Your task to perform on an android device: Open Maps and search for coffee Image 0: 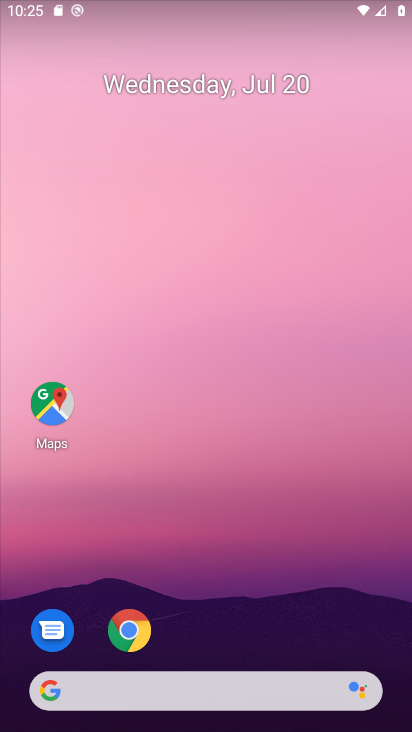
Step 0: drag from (223, 532) to (180, 99)
Your task to perform on an android device: Open Maps and search for coffee Image 1: 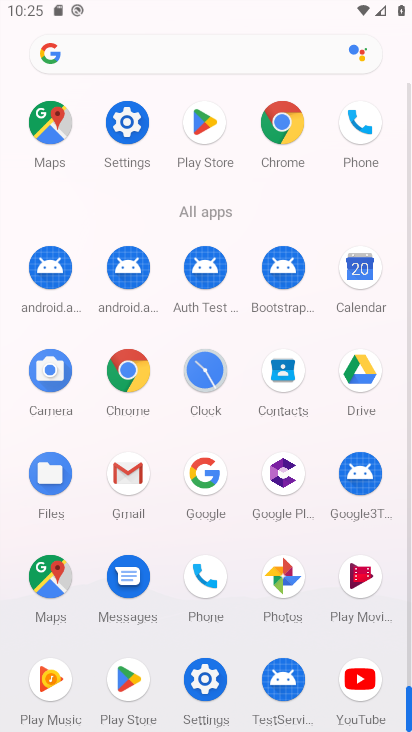
Step 1: click (48, 116)
Your task to perform on an android device: Open Maps and search for coffee Image 2: 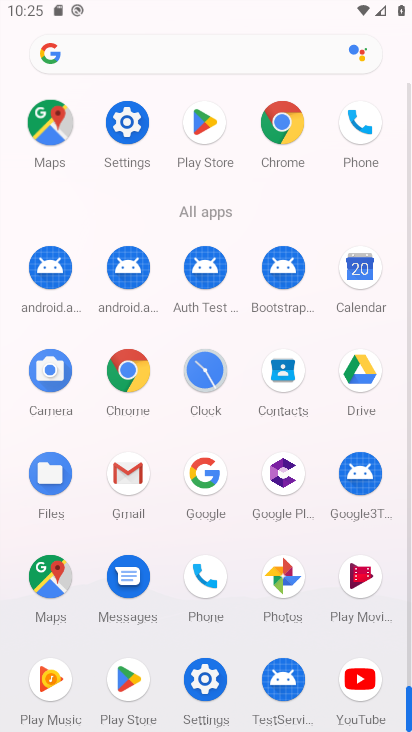
Step 2: click (46, 117)
Your task to perform on an android device: Open Maps and search for coffee Image 3: 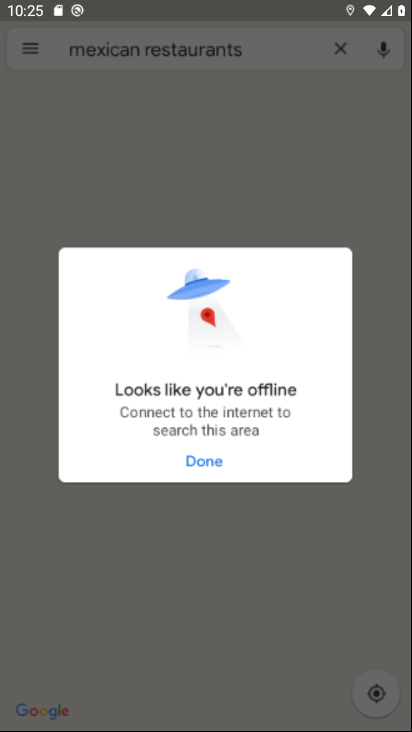
Step 3: click (51, 115)
Your task to perform on an android device: Open Maps and search for coffee Image 4: 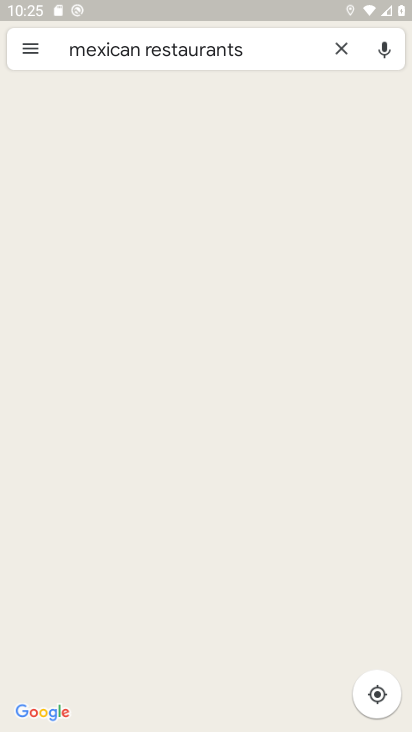
Step 4: click (243, 38)
Your task to perform on an android device: Open Maps and search for coffee Image 5: 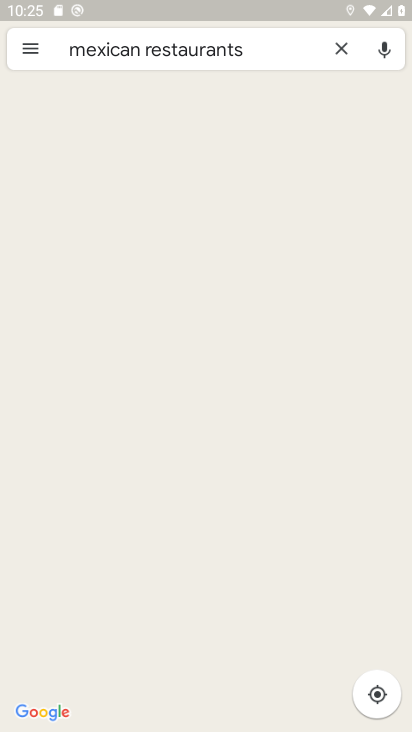
Step 5: click (245, 39)
Your task to perform on an android device: Open Maps and search for coffee Image 6: 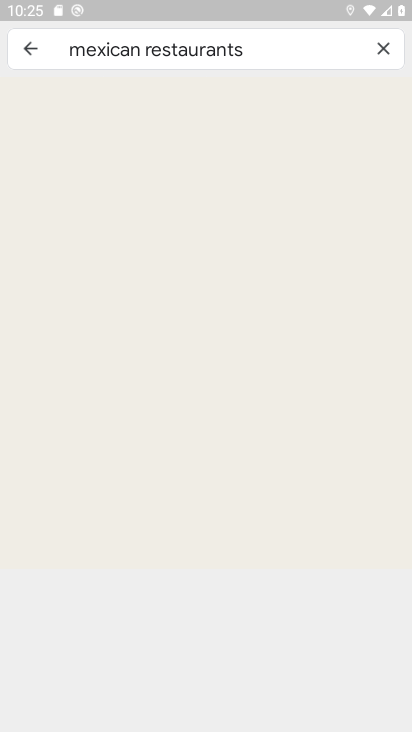
Step 6: click (248, 36)
Your task to perform on an android device: Open Maps and search for coffee Image 7: 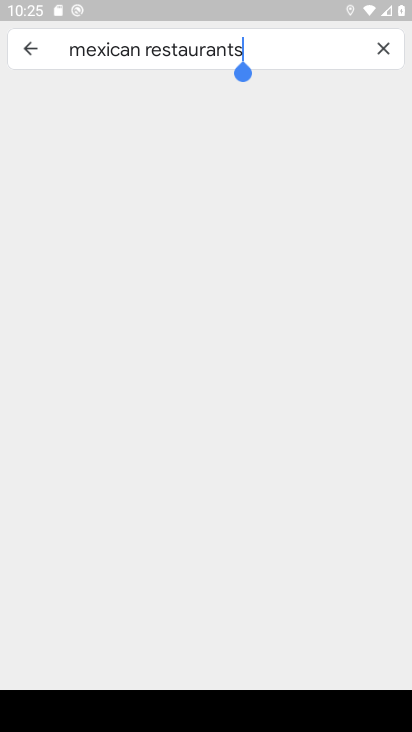
Step 7: click (383, 44)
Your task to perform on an android device: Open Maps and search for coffee Image 8: 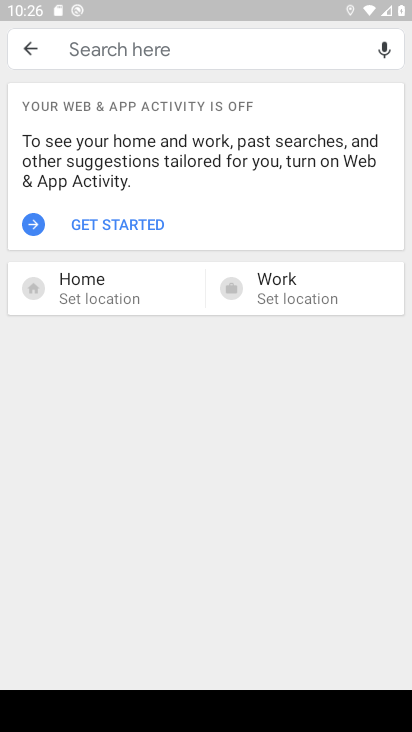
Step 8: type "coffee"
Your task to perform on an android device: Open Maps and search for coffee Image 9: 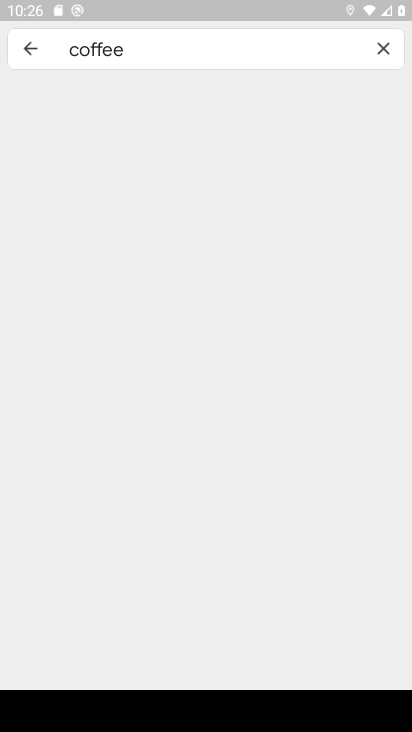
Step 9: click (158, 62)
Your task to perform on an android device: Open Maps and search for coffee Image 10: 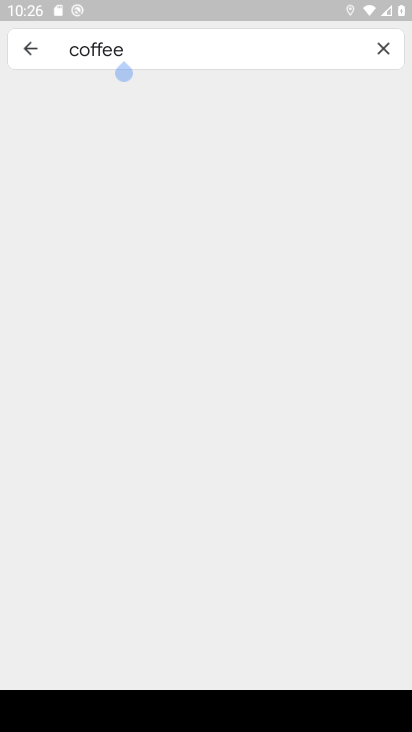
Step 10: click (158, 63)
Your task to perform on an android device: Open Maps and search for coffee Image 11: 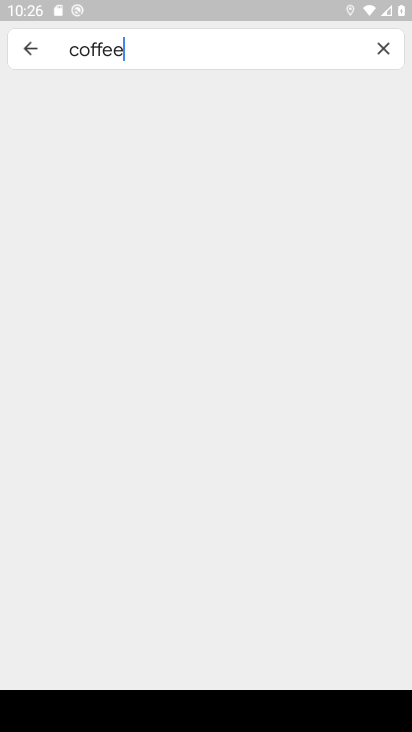
Step 11: click (162, 40)
Your task to perform on an android device: Open Maps and search for coffee Image 12: 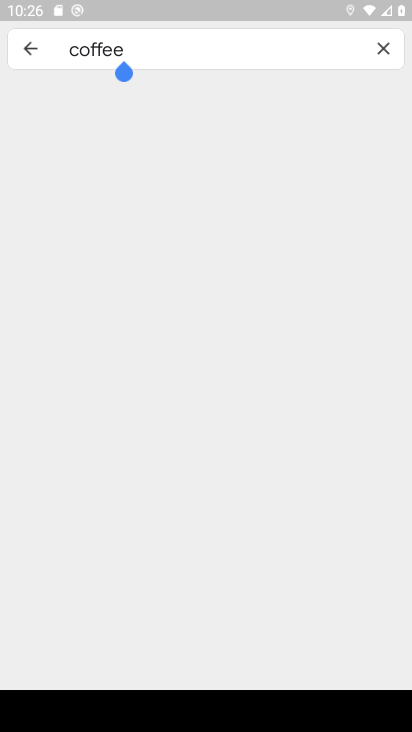
Step 12: click (142, 38)
Your task to perform on an android device: Open Maps and search for coffee Image 13: 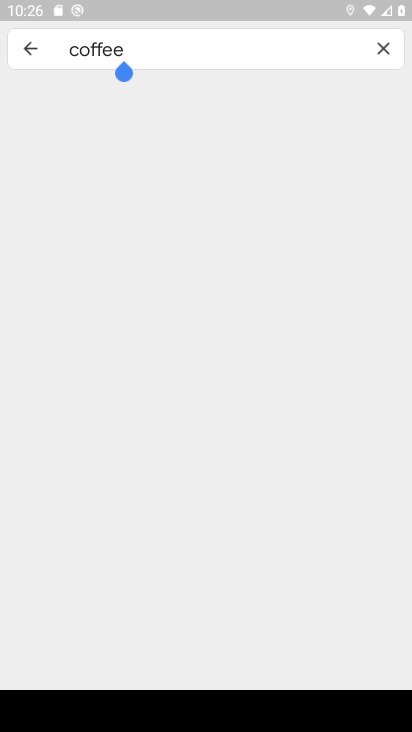
Step 13: click (155, 56)
Your task to perform on an android device: Open Maps and search for coffee Image 14: 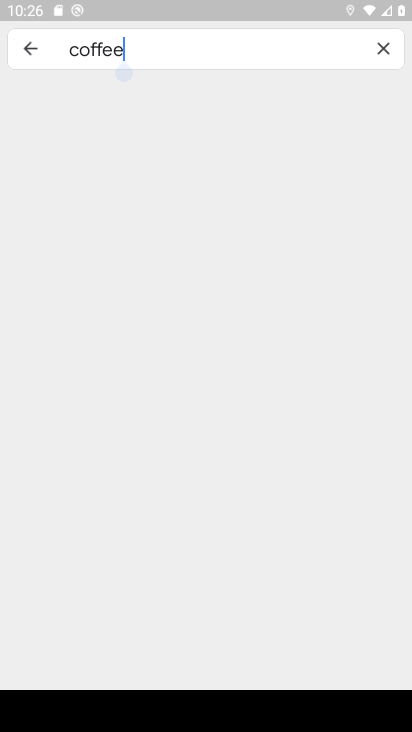
Step 14: click (155, 58)
Your task to perform on an android device: Open Maps and search for coffee Image 15: 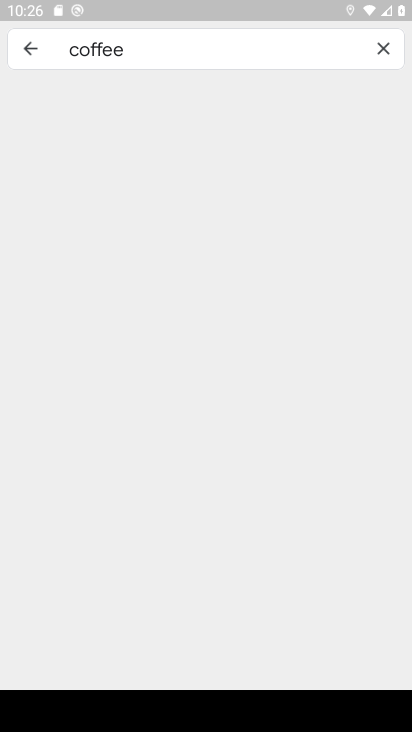
Step 15: click (150, 59)
Your task to perform on an android device: Open Maps and search for coffee Image 16: 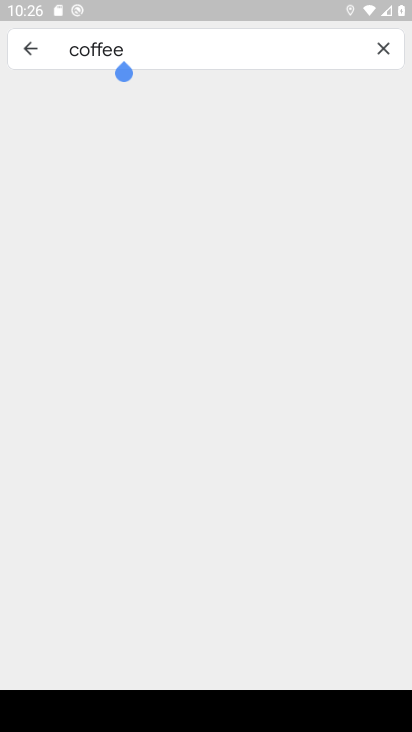
Step 16: click (156, 61)
Your task to perform on an android device: Open Maps and search for coffee Image 17: 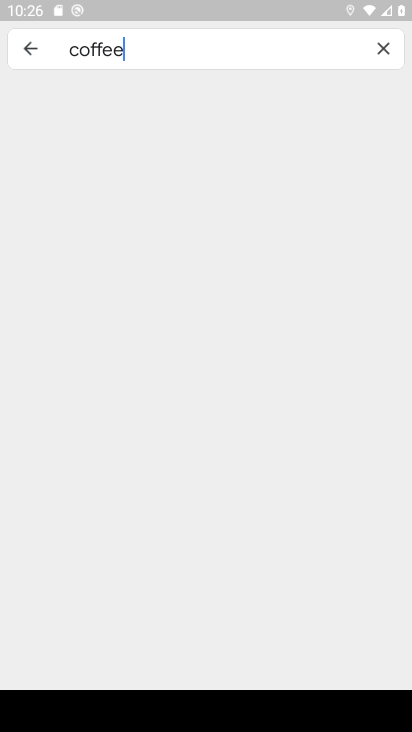
Step 17: click (162, 45)
Your task to perform on an android device: Open Maps and search for coffee Image 18: 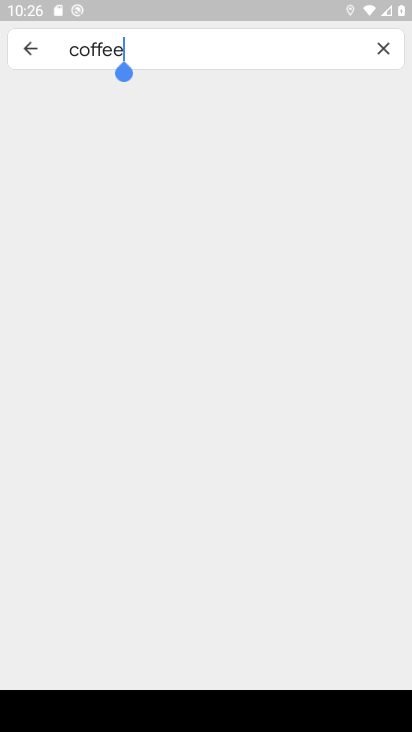
Step 18: click (168, 50)
Your task to perform on an android device: Open Maps and search for coffee Image 19: 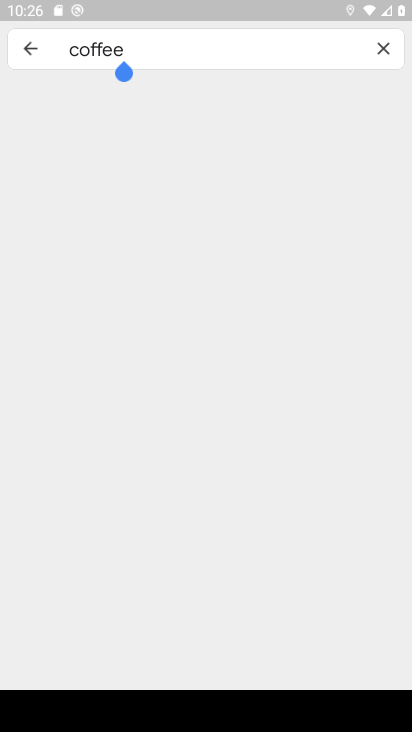
Step 19: click (384, 46)
Your task to perform on an android device: Open Maps and search for coffee Image 20: 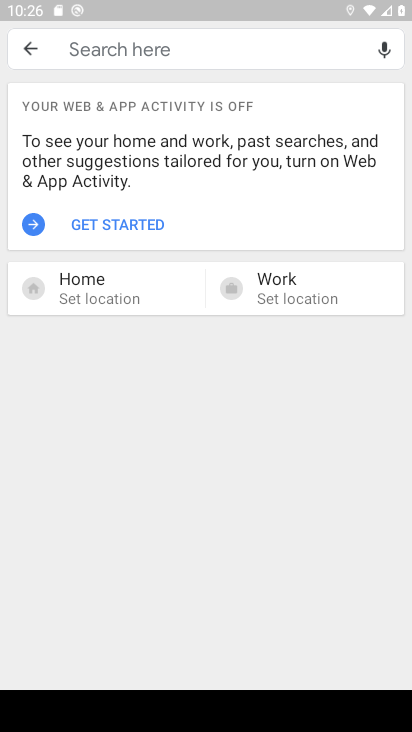
Step 20: click (200, 49)
Your task to perform on an android device: Open Maps and search for coffee Image 21: 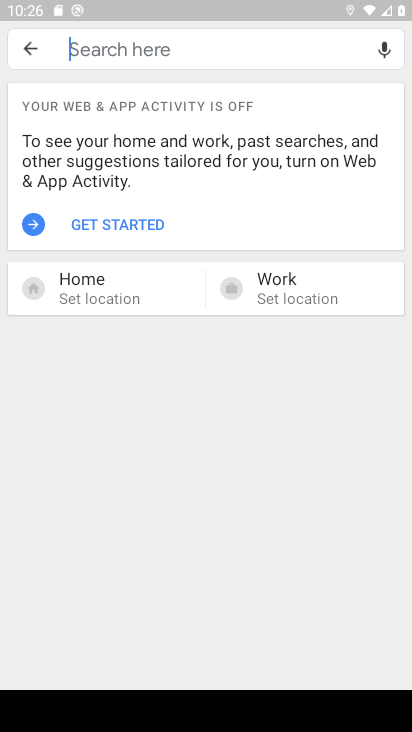
Step 21: click (202, 51)
Your task to perform on an android device: Open Maps and search for coffee Image 22: 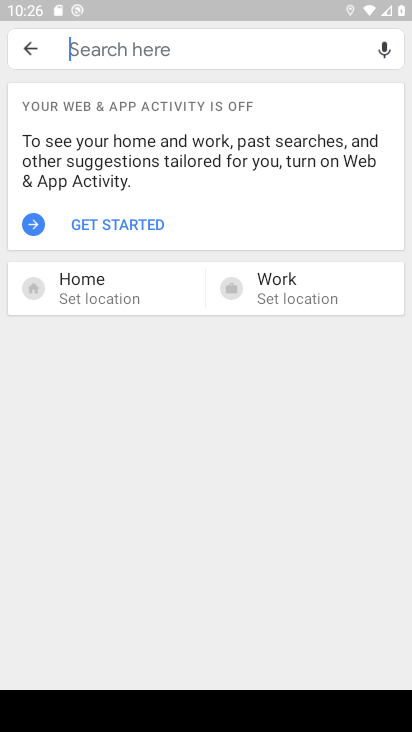
Step 22: type "coffee"
Your task to perform on an android device: Open Maps and search for coffee Image 23: 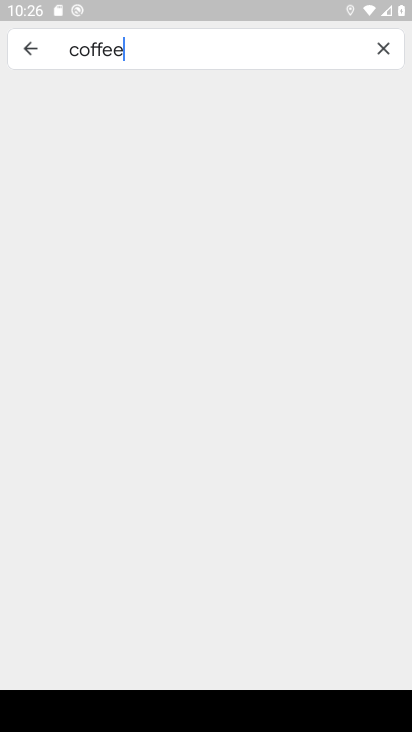
Step 23: click (162, 52)
Your task to perform on an android device: Open Maps and search for coffee Image 24: 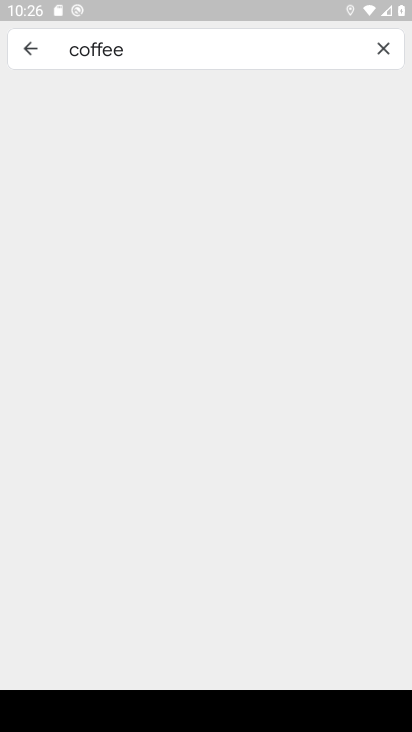
Step 24: click (162, 52)
Your task to perform on an android device: Open Maps and search for coffee Image 25: 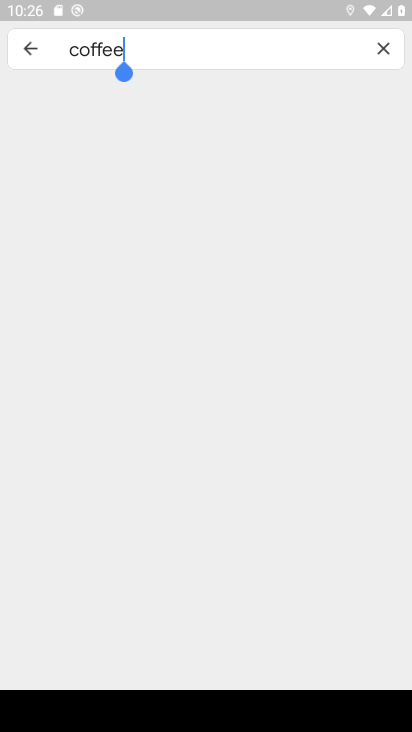
Step 25: click (173, 50)
Your task to perform on an android device: Open Maps and search for coffee Image 26: 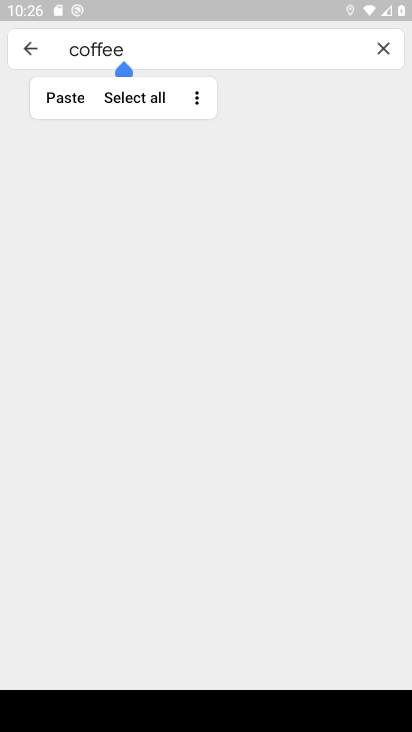
Step 26: task complete